Your task to perform on an android device: turn off data saver in the chrome app Image 0: 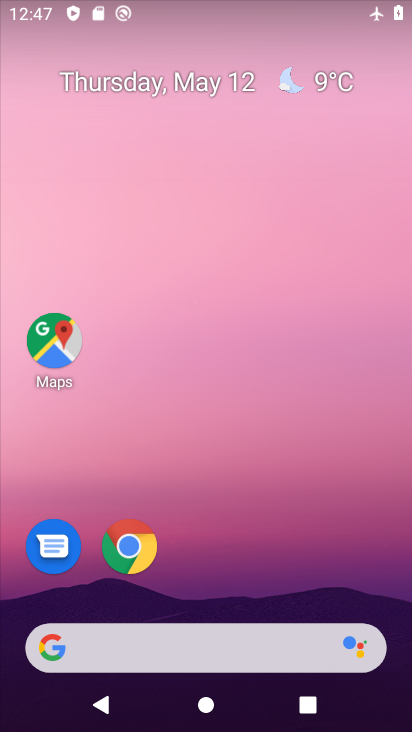
Step 0: drag from (236, 655) to (242, 104)
Your task to perform on an android device: turn off data saver in the chrome app Image 1: 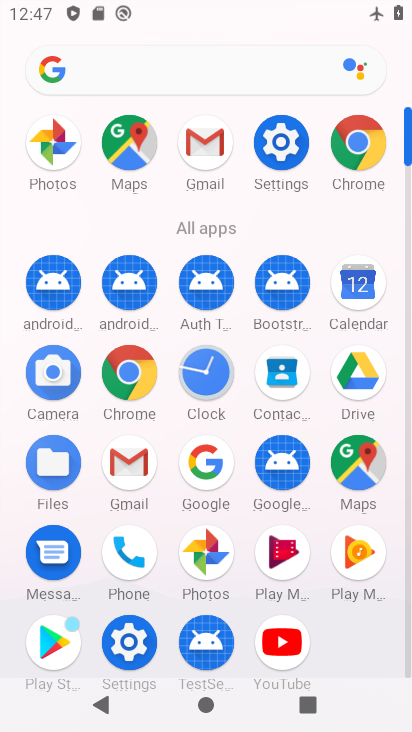
Step 1: click (123, 375)
Your task to perform on an android device: turn off data saver in the chrome app Image 2: 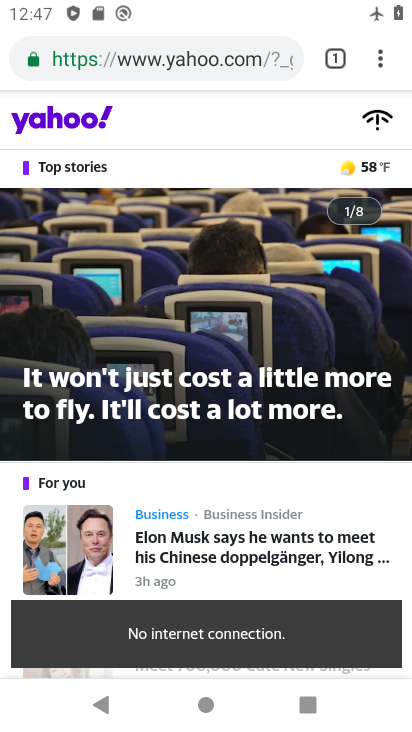
Step 2: click (377, 47)
Your task to perform on an android device: turn off data saver in the chrome app Image 3: 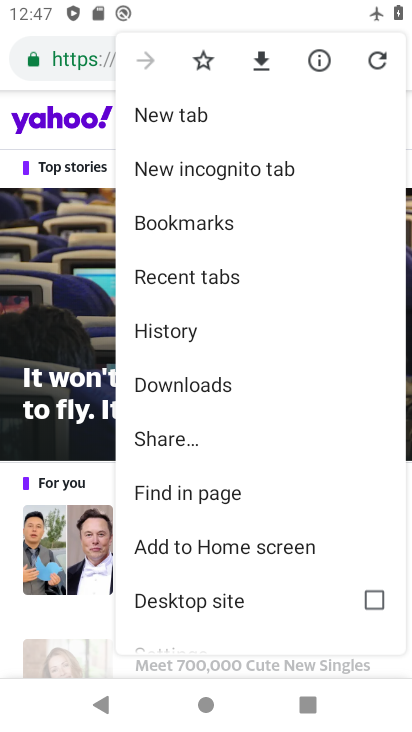
Step 3: drag from (176, 568) to (298, 115)
Your task to perform on an android device: turn off data saver in the chrome app Image 4: 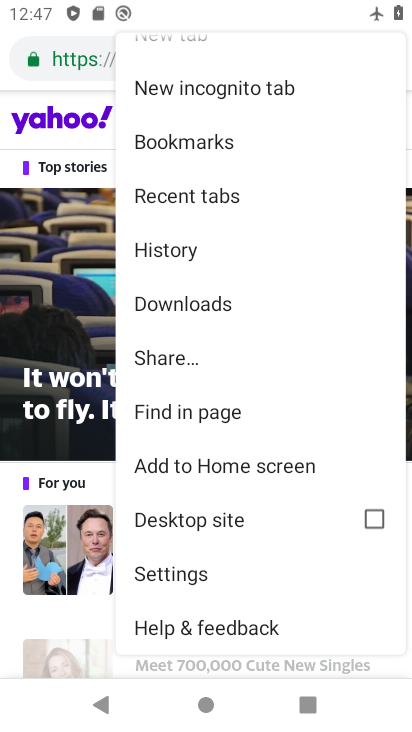
Step 4: click (185, 573)
Your task to perform on an android device: turn off data saver in the chrome app Image 5: 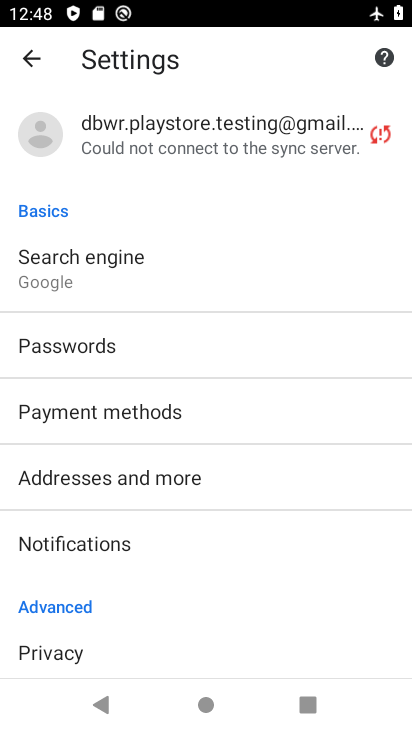
Step 5: drag from (177, 595) to (277, 321)
Your task to perform on an android device: turn off data saver in the chrome app Image 6: 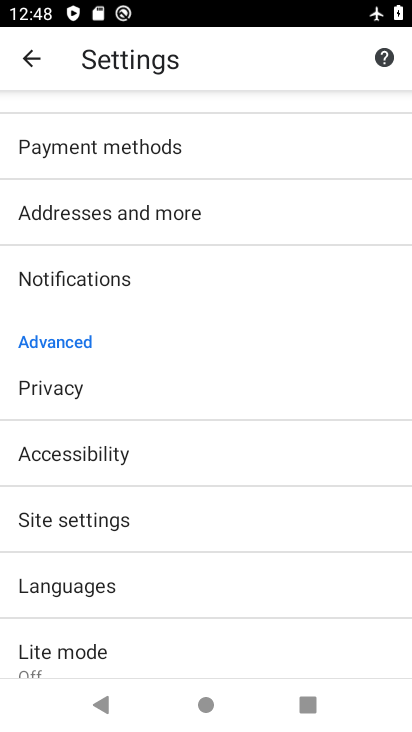
Step 6: drag from (58, 650) to (181, 481)
Your task to perform on an android device: turn off data saver in the chrome app Image 7: 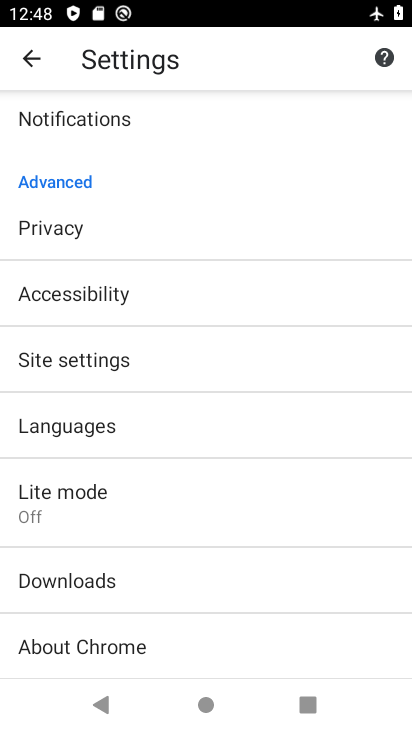
Step 7: click (94, 508)
Your task to perform on an android device: turn off data saver in the chrome app Image 8: 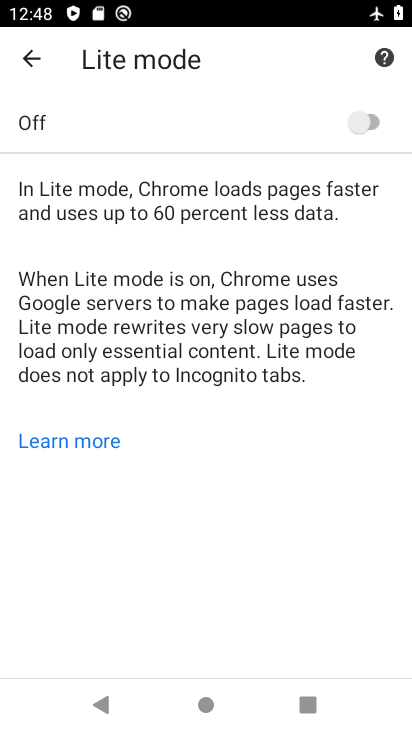
Step 8: click (331, 120)
Your task to perform on an android device: turn off data saver in the chrome app Image 9: 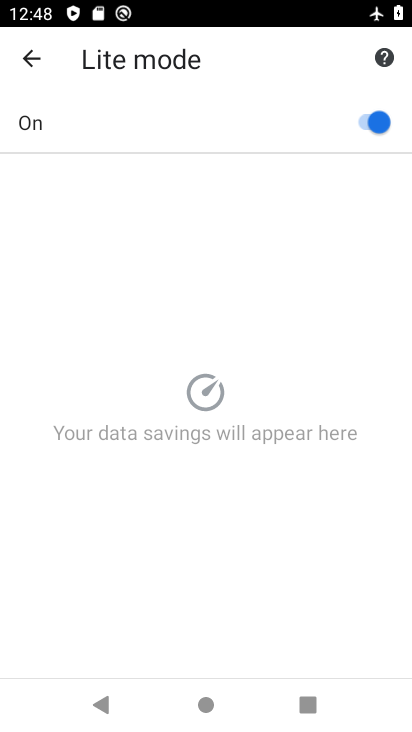
Step 9: click (328, 121)
Your task to perform on an android device: turn off data saver in the chrome app Image 10: 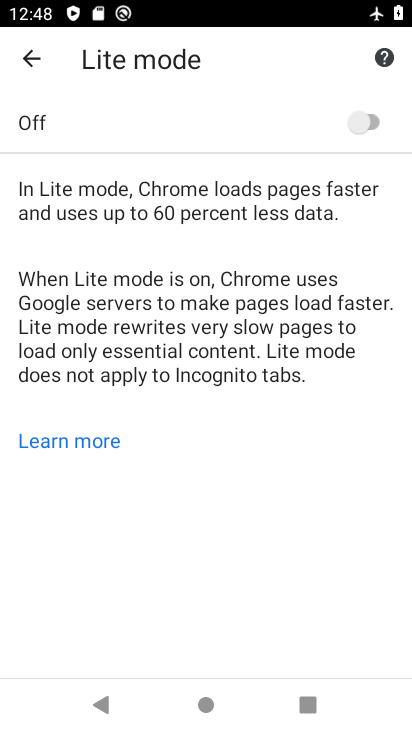
Step 10: task complete